Your task to perform on an android device: Go to settings Image 0: 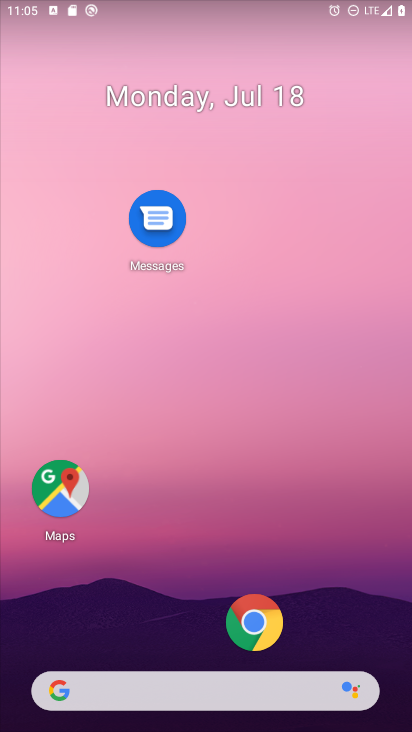
Step 0: drag from (211, 615) to (248, 120)
Your task to perform on an android device: Go to settings Image 1: 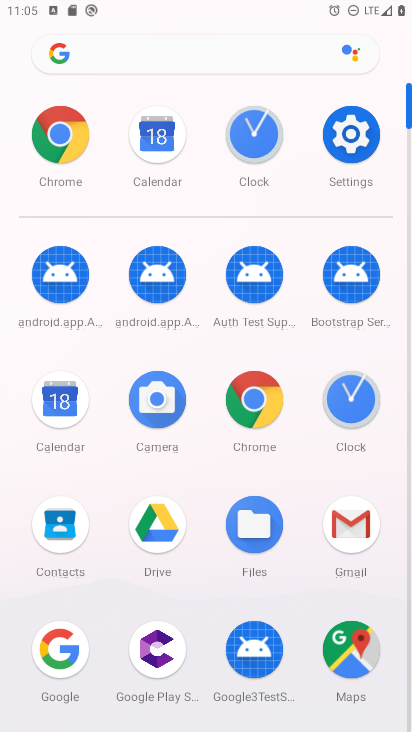
Step 1: click (347, 141)
Your task to perform on an android device: Go to settings Image 2: 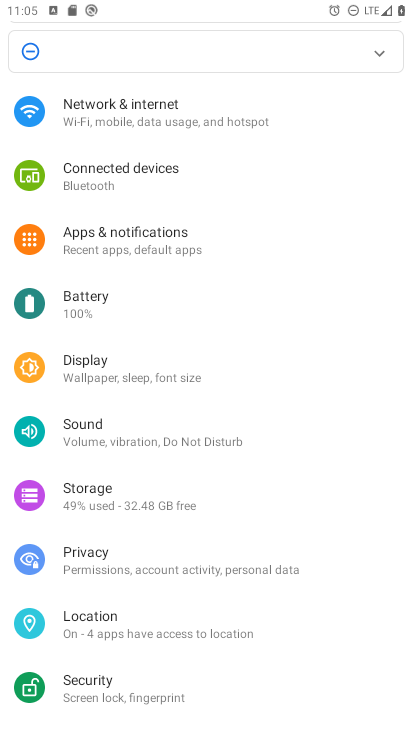
Step 2: task complete